Your task to perform on an android device: Open Google Maps Image 0: 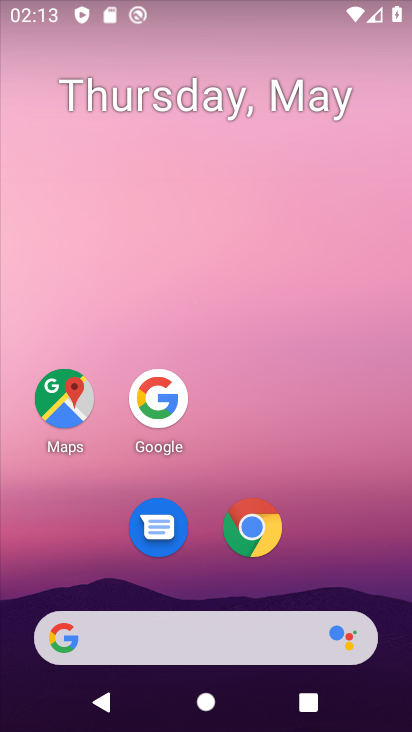
Step 0: drag from (203, 580) to (241, 13)
Your task to perform on an android device: Open Google Maps Image 1: 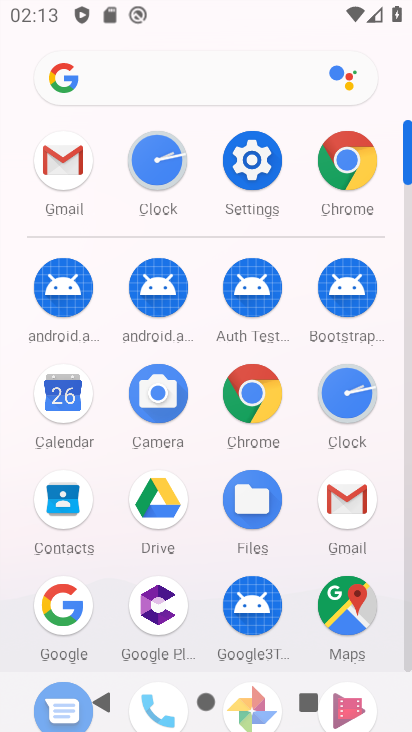
Step 1: click (359, 602)
Your task to perform on an android device: Open Google Maps Image 2: 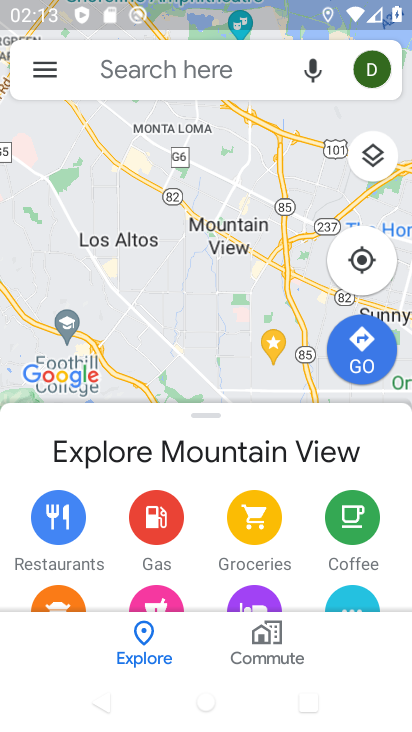
Step 2: click (257, 164)
Your task to perform on an android device: Open Google Maps Image 3: 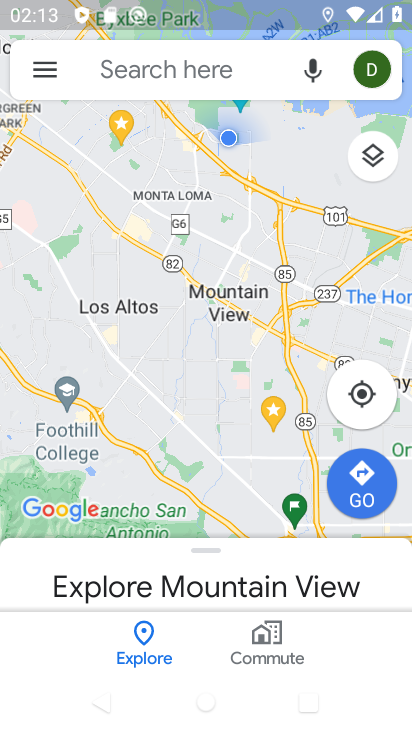
Step 3: task complete